Your task to perform on an android device: create a new album in the google photos Image 0: 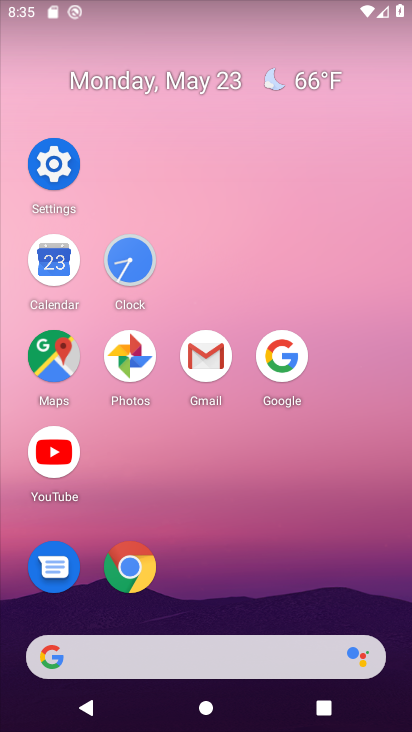
Step 0: click (115, 357)
Your task to perform on an android device: create a new album in the google photos Image 1: 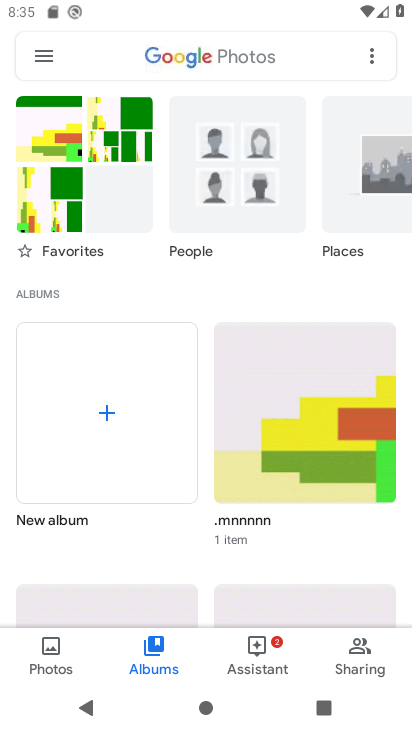
Step 1: click (106, 479)
Your task to perform on an android device: create a new album in the google photos Image 2: 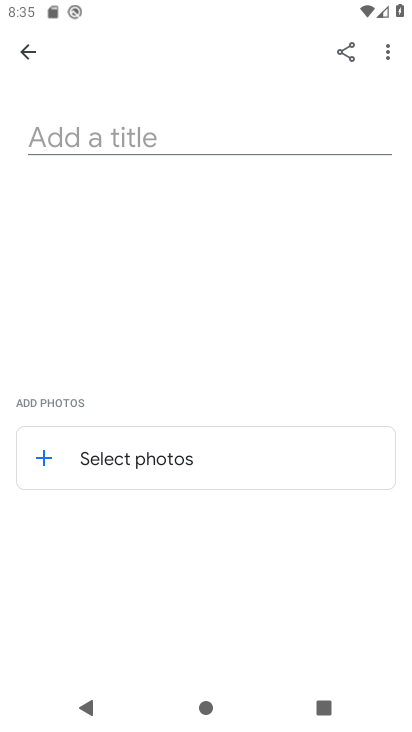
Step 2: click (209, 122)
Your task to perform on an android device: create a new album in the google photos Image 3: 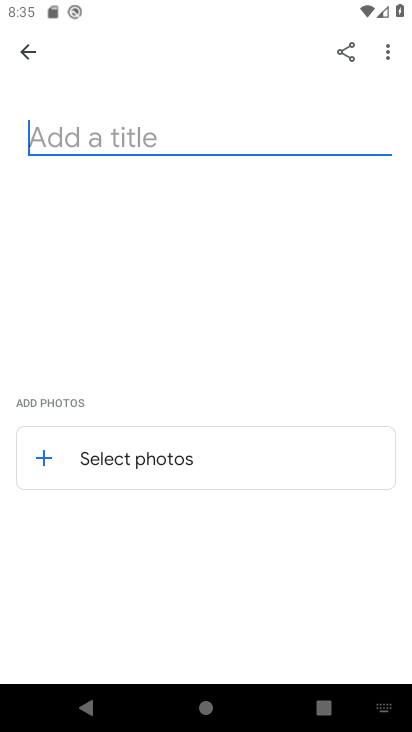
Step 3: type "ccc"
Your task to perform on an android device: create a new album in the google photos Image 4: 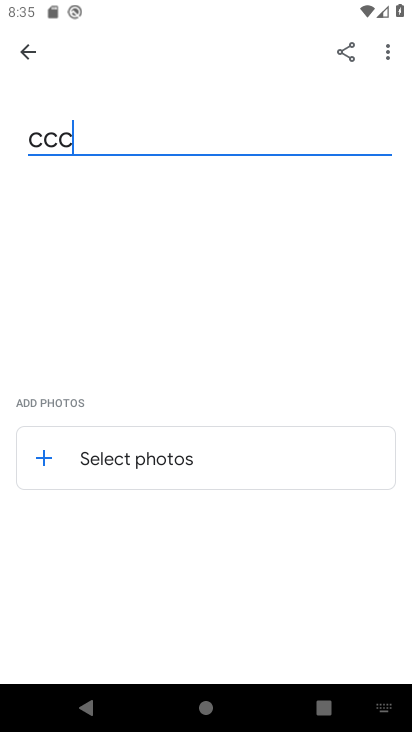
Step 4: click (107, 450)
Your task to perform on an android device: create a new album in the google photos Image 5: 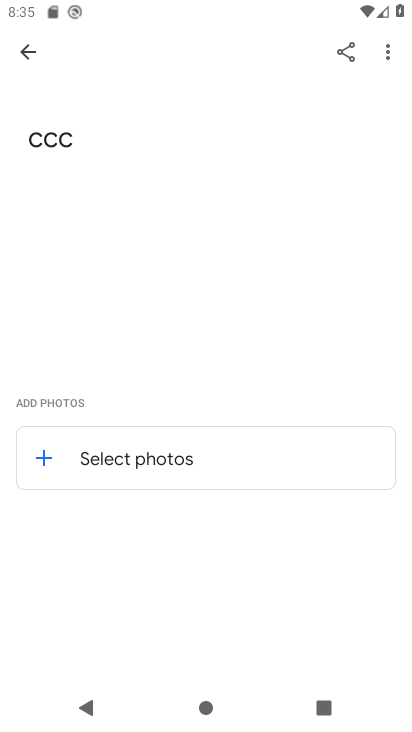
Step 5: click (62, 458)
Your task to perform on an android device: create a new album in the google photos Image 6: 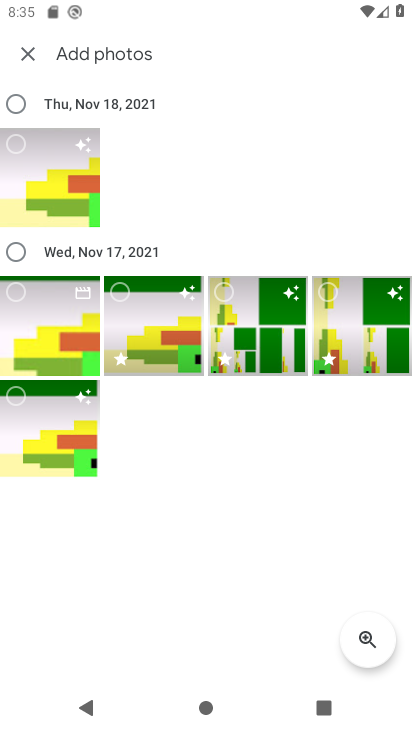
Step 6: click (32, 311)
Your task to perform on an android device: create a new album in the google photos Image 7: 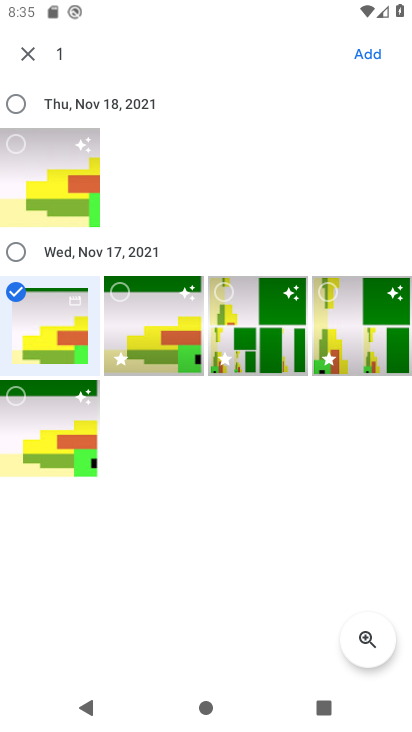
Step 7: click (173, 311)
Your task to perform on an android device: create a new album in the google photos Image 8: 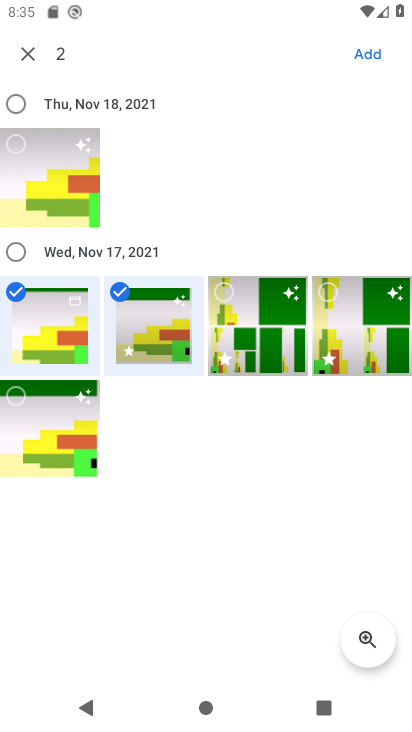
Step 8: click (366, 52)
Your task to perform on an android device: create a new album in the google photos Image 9: 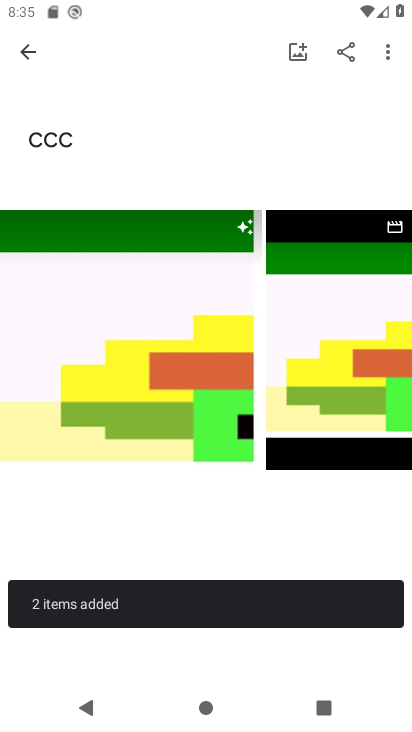
Step 9: task complete